Your task to perform on an android device: turn notification dots off Image 0: 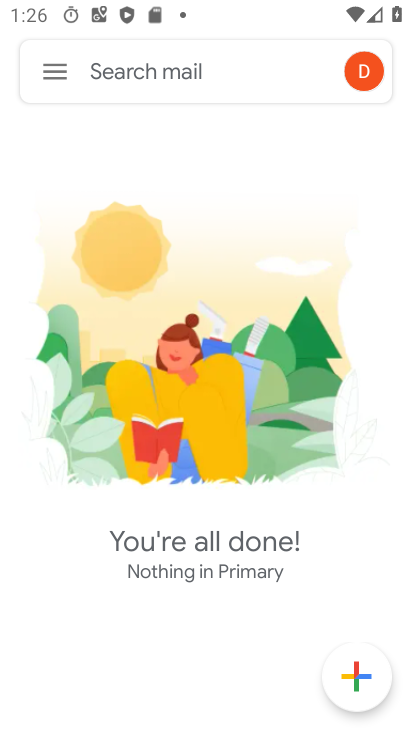
Step 0: press home button
Your task to perform on an android device: turn notification dots off Image 1: 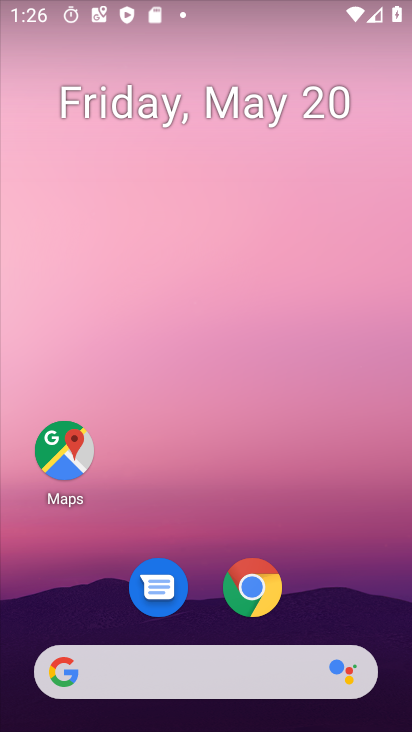
Step 1: drag from (359, 517) to (302, 97)
Your task to perform on an android device: turn notification dots off Image 2: 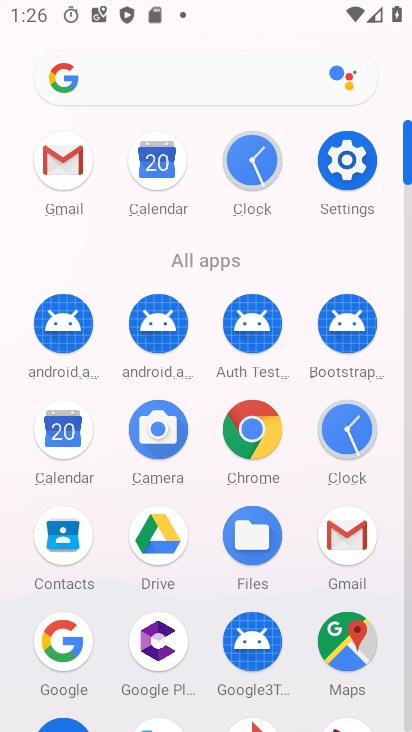
Step 2: click (358, 166)
Your task to perform on an android device: turn notification dots off Image 3: 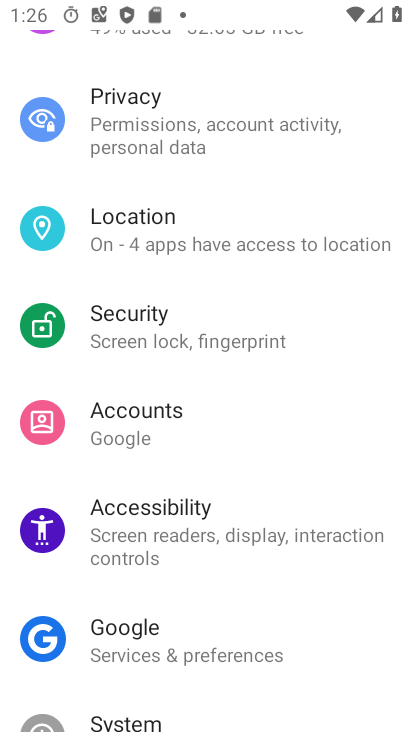
Step 3: drag from (148, 586) to (228, 621)
Your task to perform on an android device: turn notification dots off Image 4: 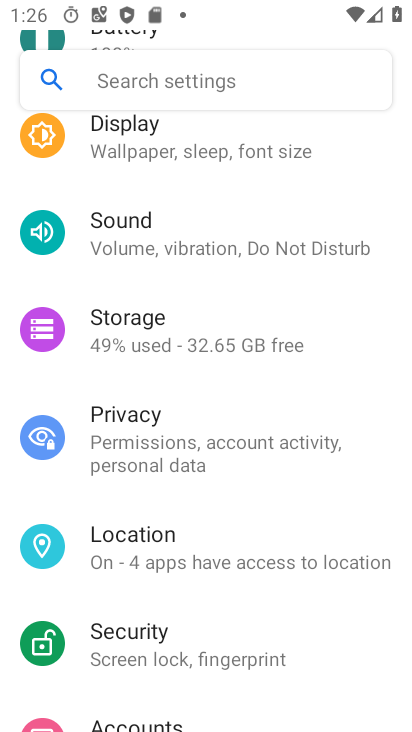
Step 4: drag from (242, 281) to (221, 578)
Your task to perform on an android device: turn notification dots off Image 5: 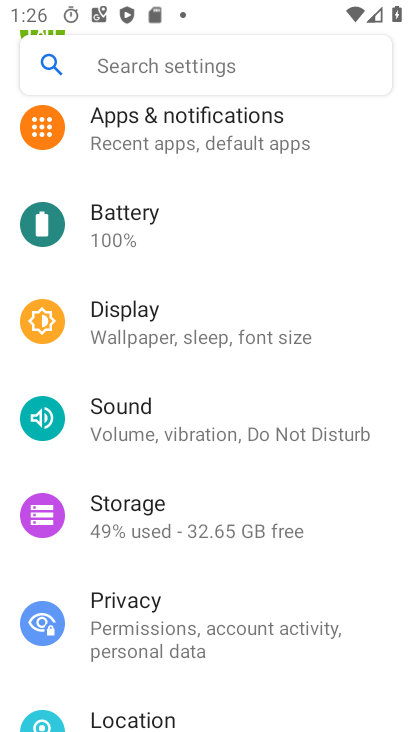
Step 5: click (217, 147)
Your task to perform on an android device: turn notification dots off Image 6: 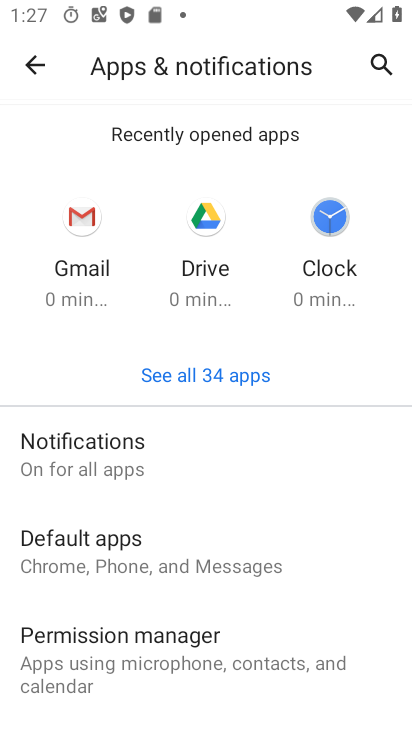
Step 6: click (125, 442)
Your task to perform on an android device: turn notification dots off Image 7: 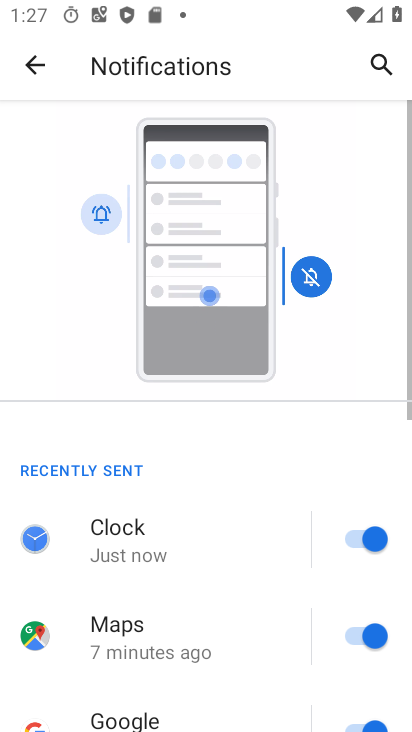
Step 7: drag from (286, 589) to (217, 12)
Your task to perform on an android device: turn notification dots off Image 8: 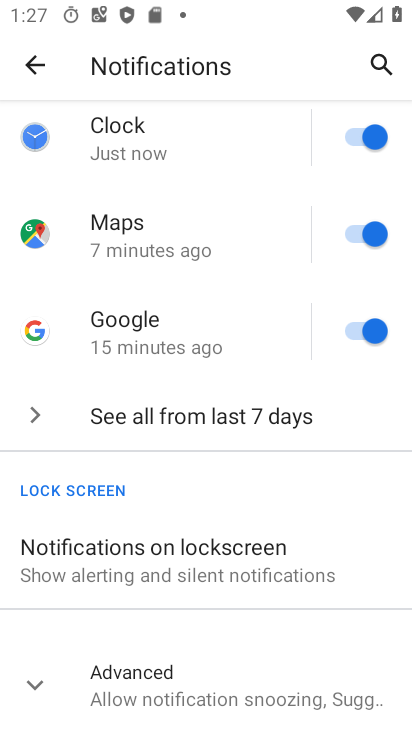
Step 8: click (146, 653)
Your task to perform on an android device: turn notification dots off Image 9: 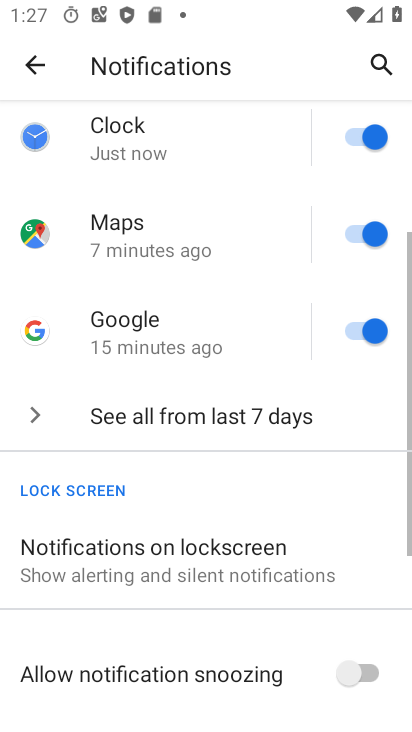
Step 9: drag from (153, 641) to (221, 163)
Your task to perform on an android device: turn notification dots off Image 10: 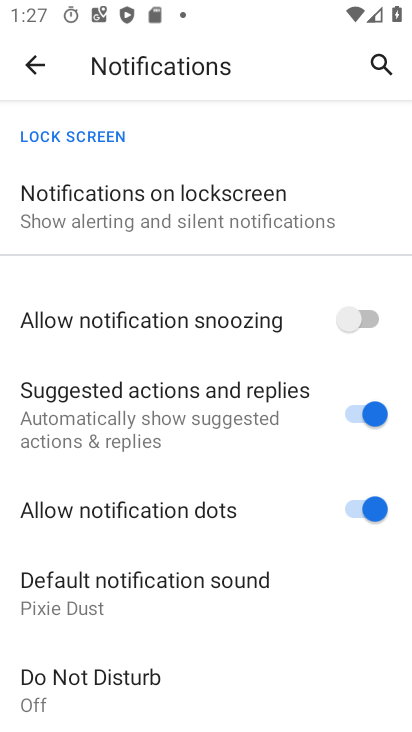
Step 10: click (357, 510)
Your task to perform on an android device: turn notification dots off Image 11: 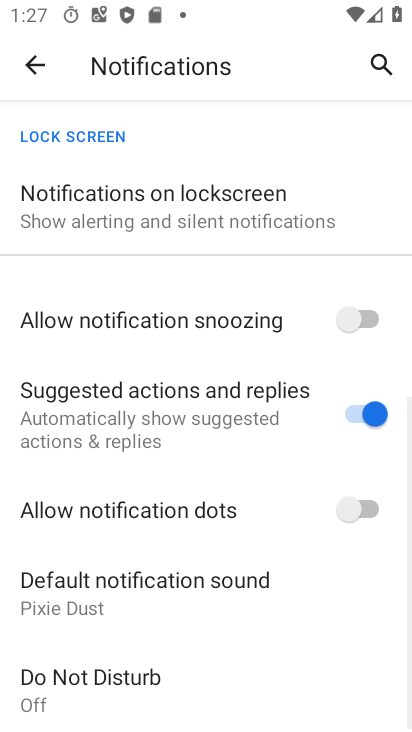
Step 11: task complete